Your task to perform on an android device: Go to calendar. Show me events next week Image 0: 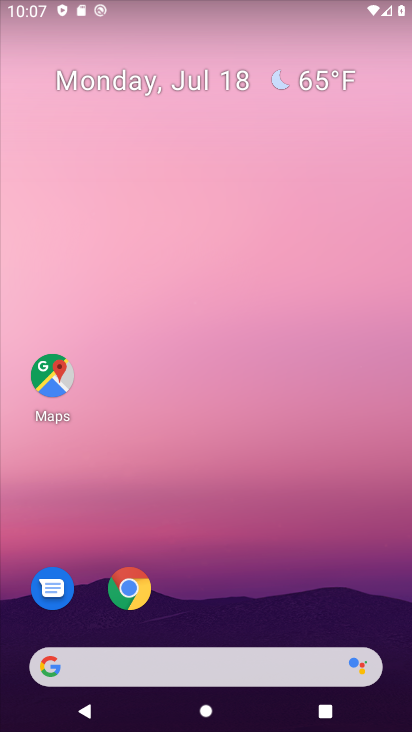
Step 0: press home button
Your task to perform on an android device: Go to calendar. Show me events next week Image 1: 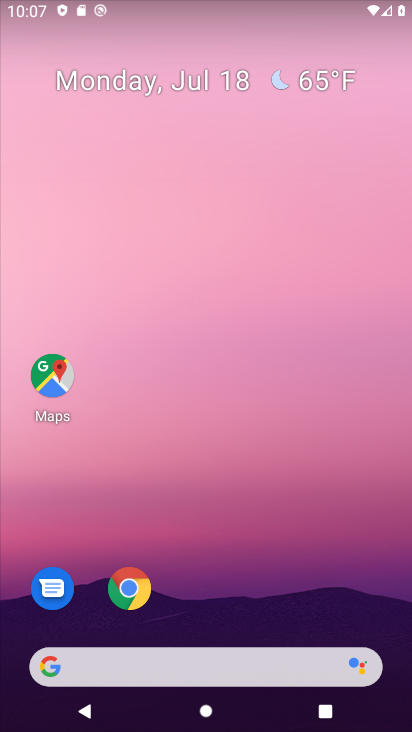
Step 1: drag from (335, 584) to (327, 115)
Your task to perform on an android device: Go to calendar. Show me events next week Image 2: 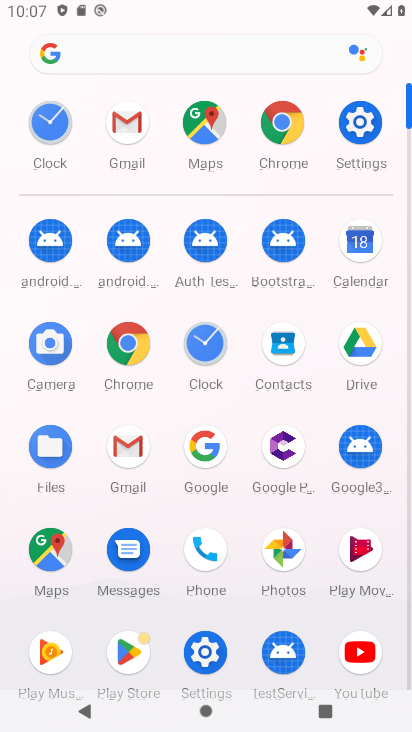
Step 2: click (364, 231)
Your task to perform on an android device: Go to calendar. Show me events next week Image 3: 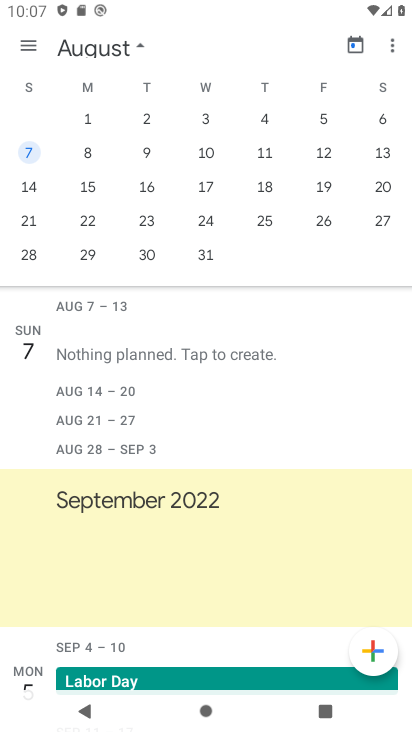
Step 3: drag from (44, 116) to (344, 109)
Your task to perform on an android device: Go to calendar. Show me events next week Image 4: 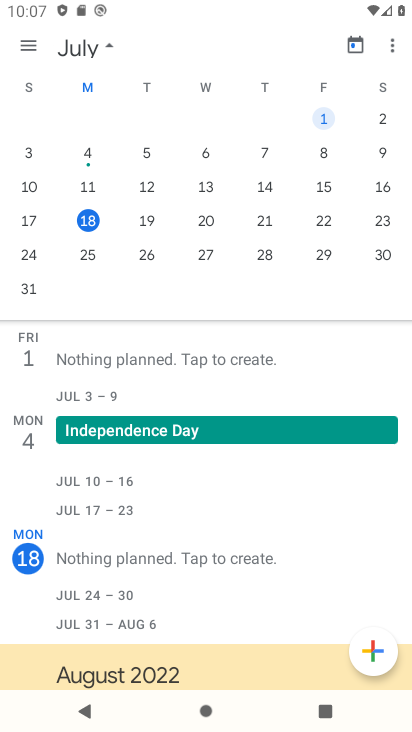
Step 4: click (151, 218)
Your task to perform on an android device: Go to calendar. Show me events next week Image 5: 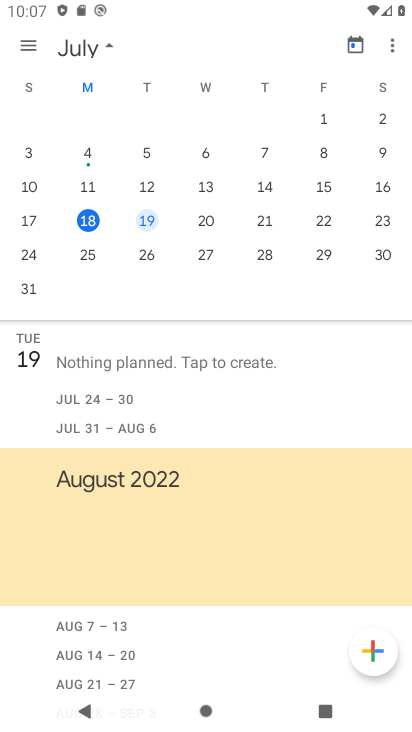
Step 5: click (18, 44)
Your task to perform on an android device: Go to calendar. Show me events next week Image 6: 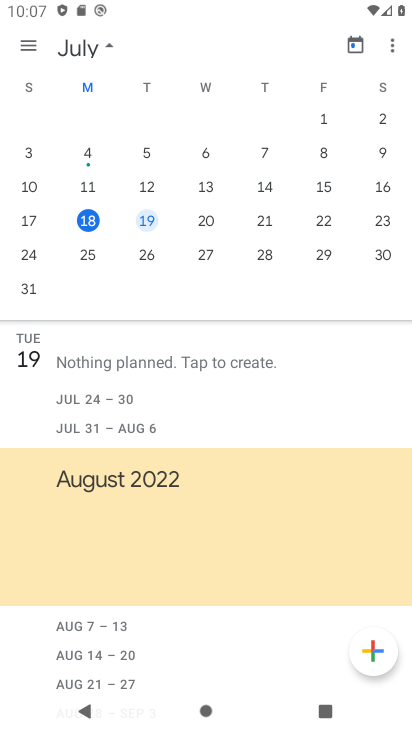
Step 6: click (25, 44)
Your task to perform on an android device: Go to calendar. Show me events next week Image 7: 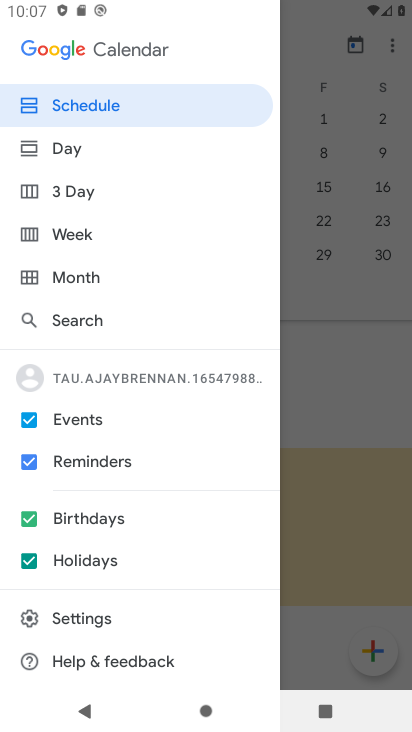
Step 7: click (80, 237)
Your task to perform on an android device: Go to calendar. Show me events next week Image 8: 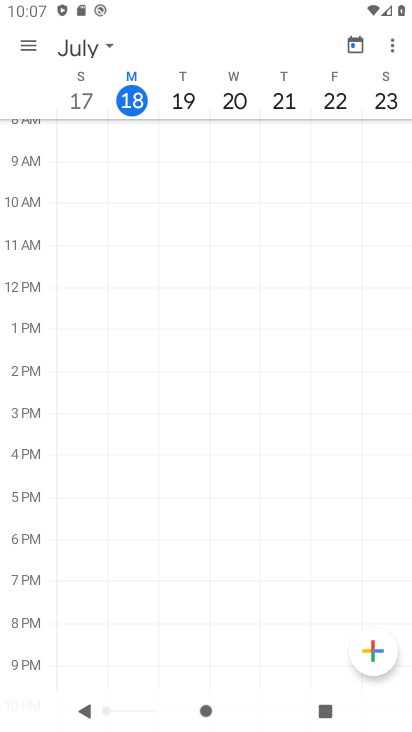
Step 8: task complete